Your task to perform on an android device: Search for sushi restaurants on Maps Image 0: 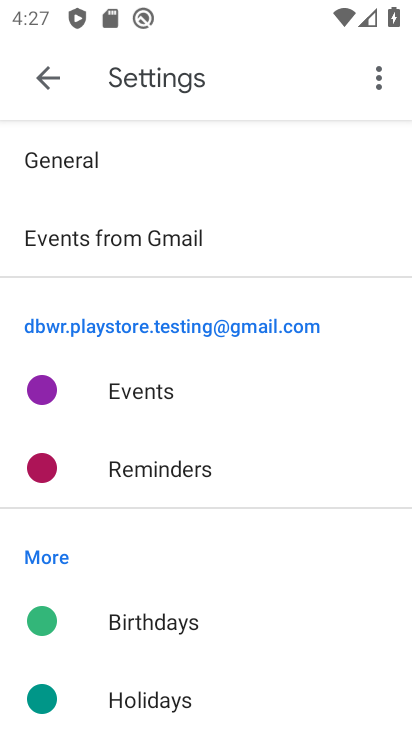
Step 0: task impossible